Your task to perform on an android device: open app "Airtel Thanks" Image 0: 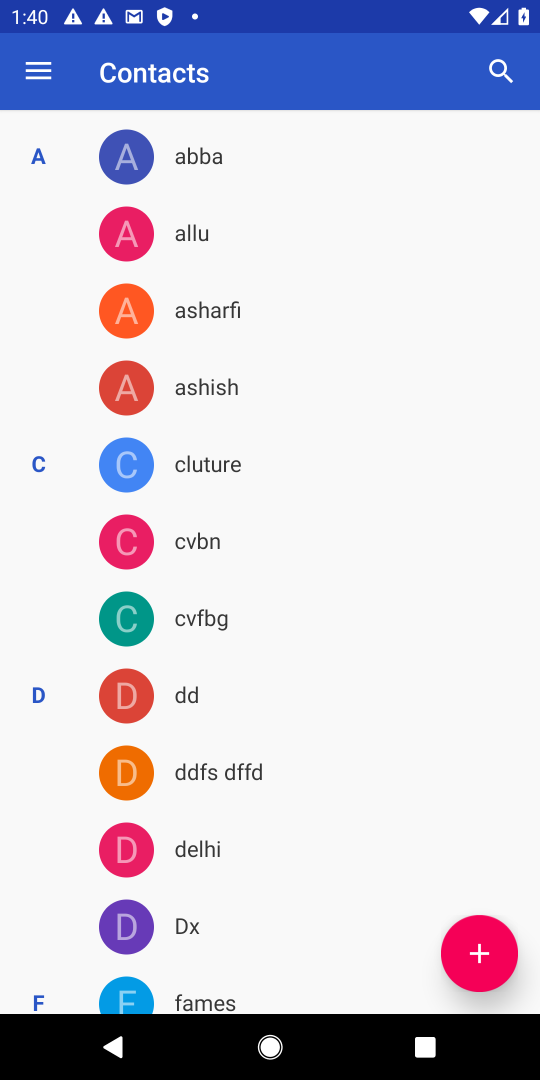
Step 0: press home button
Your task to perform on an android device: open app "Airtel Thanks" Image 1: 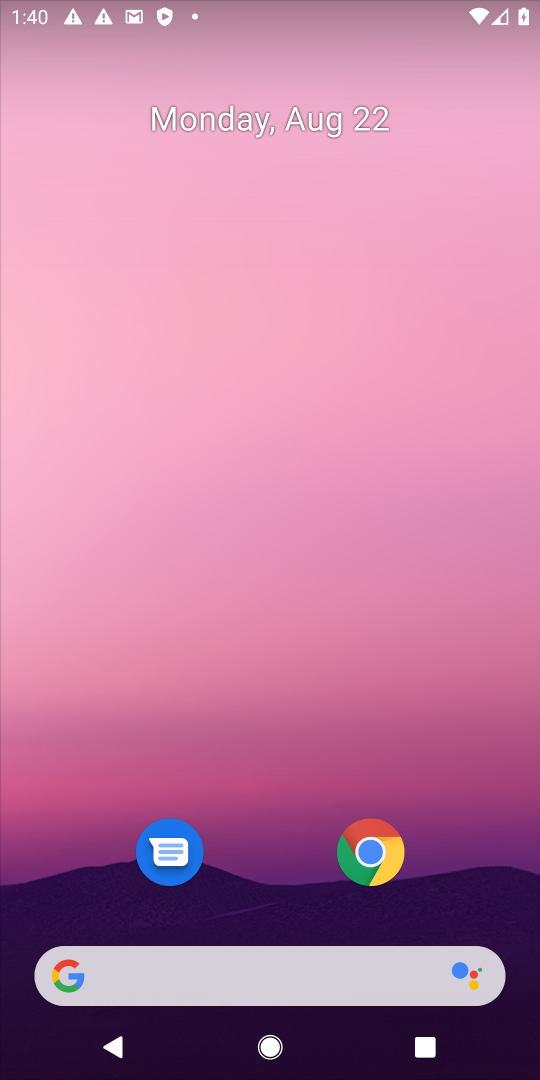
Step 1: drag from (282, 974) to (176, 43)
Your task to perform on an android device: open app "Airtel Thanks" Image 2: 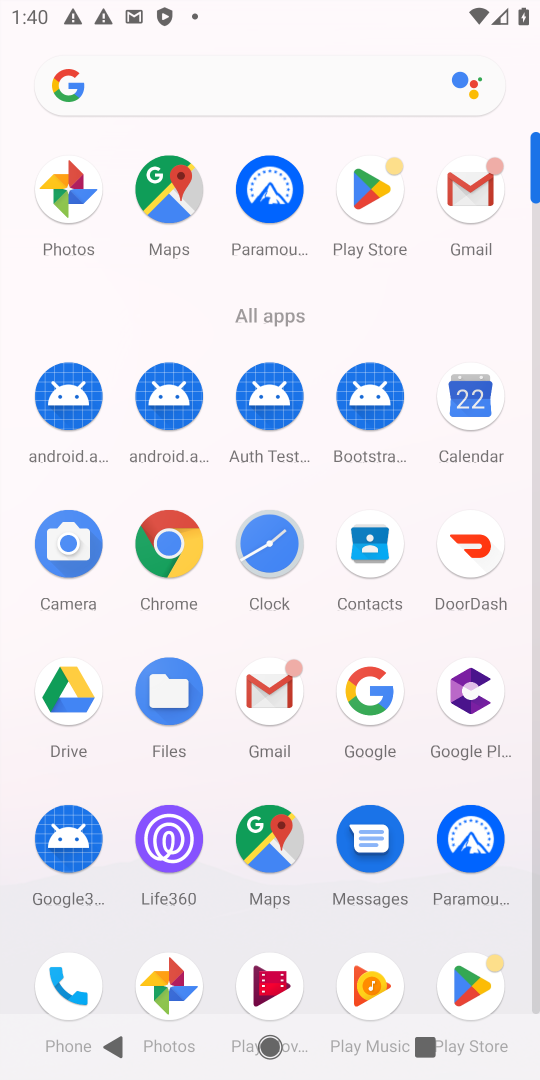
Step 2: click (350, 197)
Your task to perform on an android device: open app "Airtel Thanks" Image 3: 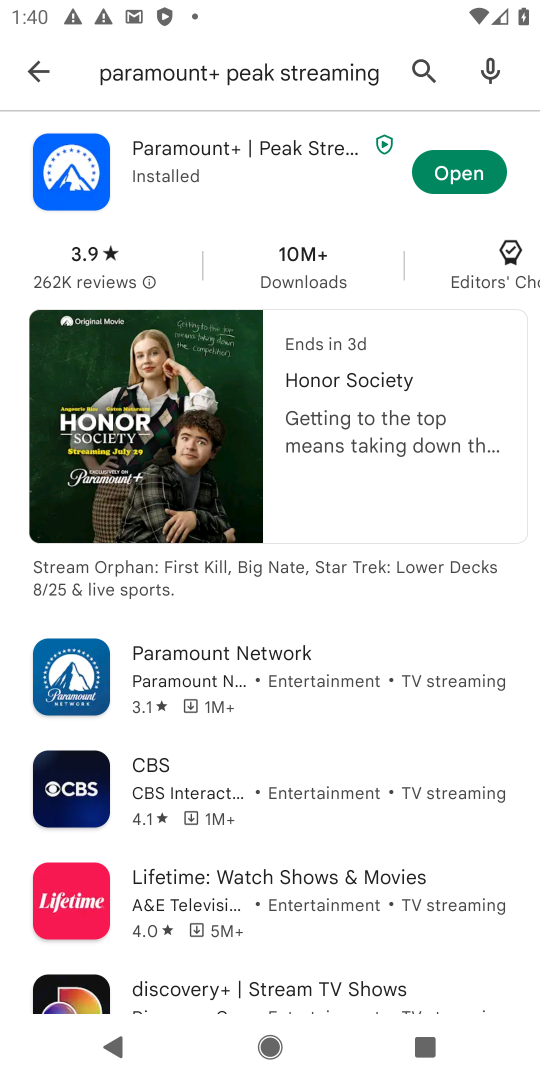
Step 3: click (423, 73)
Your task to perform on an android device: open app "Airtel Thanks" Image 4: 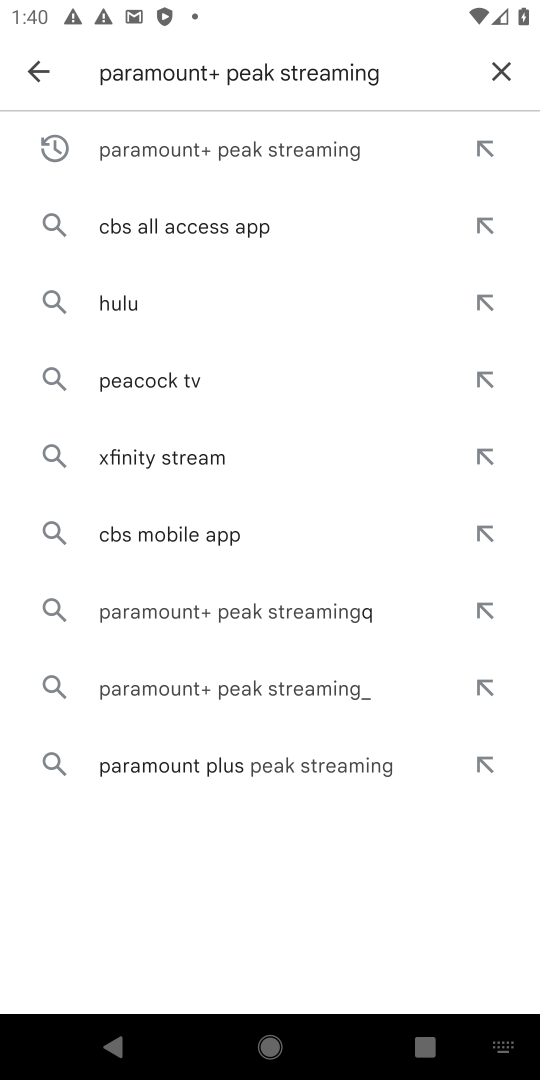
Step 4: click (497, 78)
Your task to perform on an android device: open app "Airtel Thanks" Image 5: 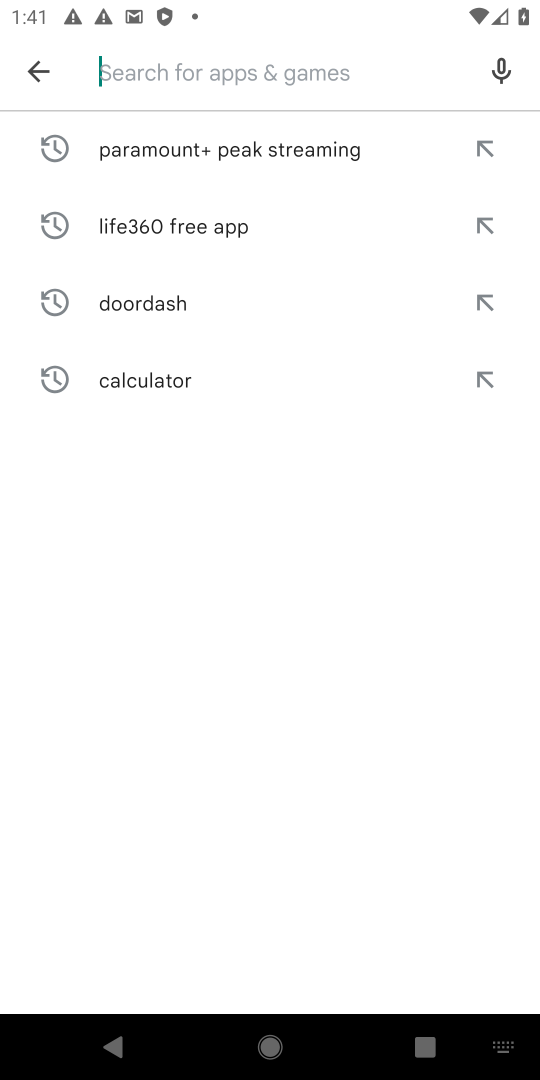
Step 5: type "airtel thanks"
Your task to perform on an android device: open app "Airtel Thanks" Image 6: 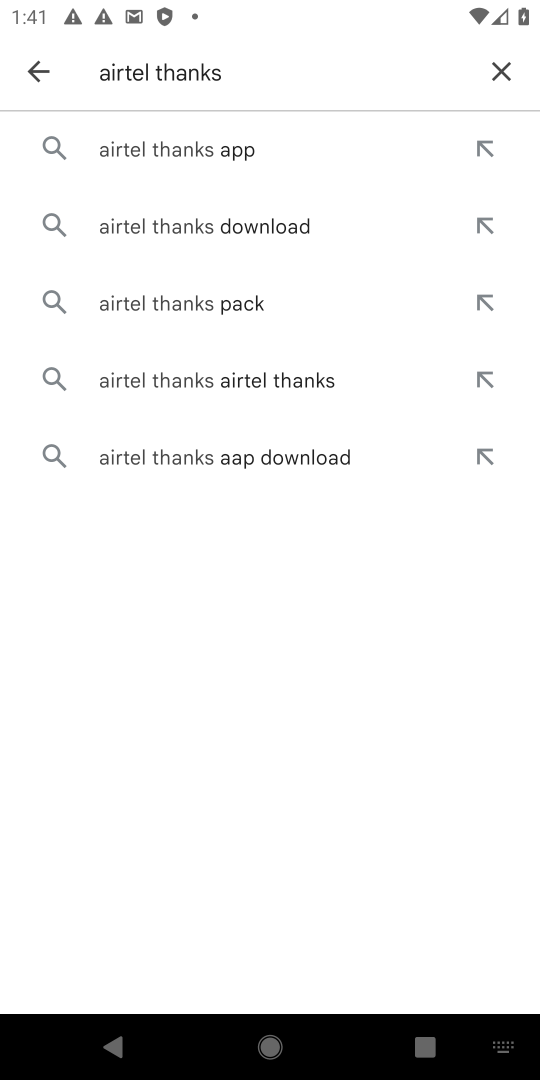
Step 6: click (182, 139)
Your task to perform on an android device: open app "Airtel Thanks" Image 7: 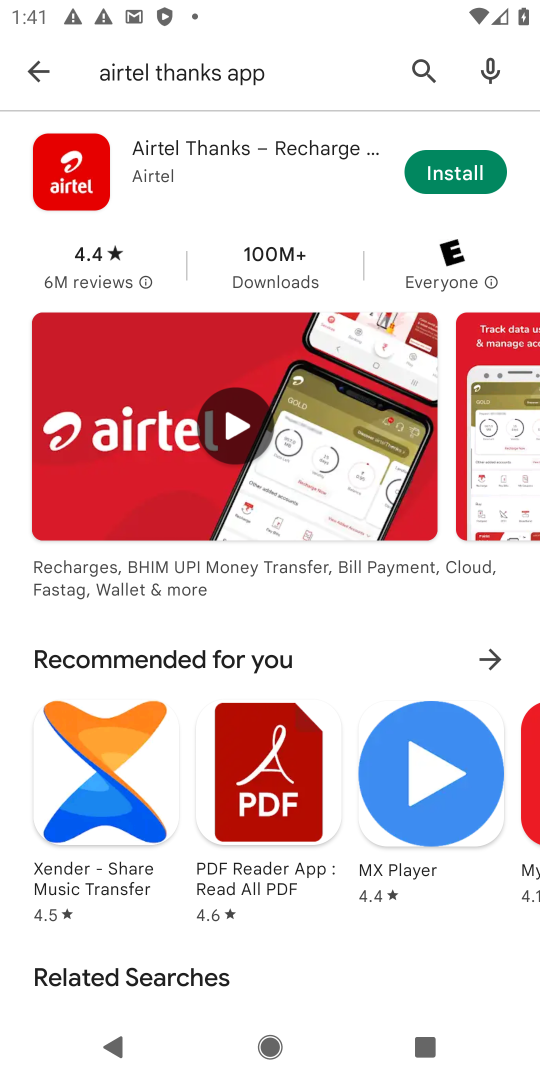
Step 7: task complete